Your task to perform on an android device: Open ESPN.com Image 0: 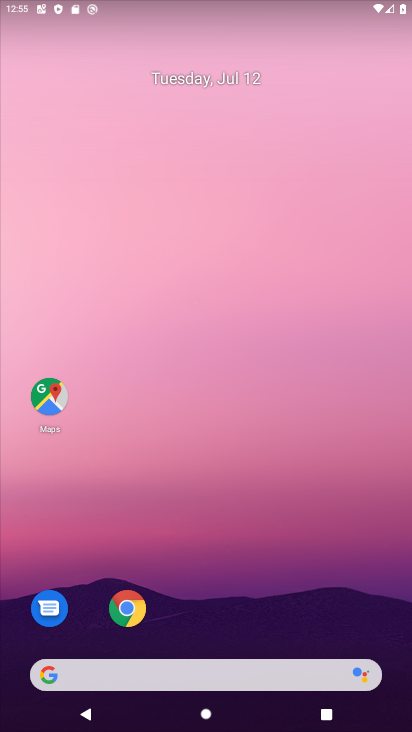
Step 0: drag from (292, 592) to (274, 349)
Your task to perform on an android device: Open ESPN.com Image 1: 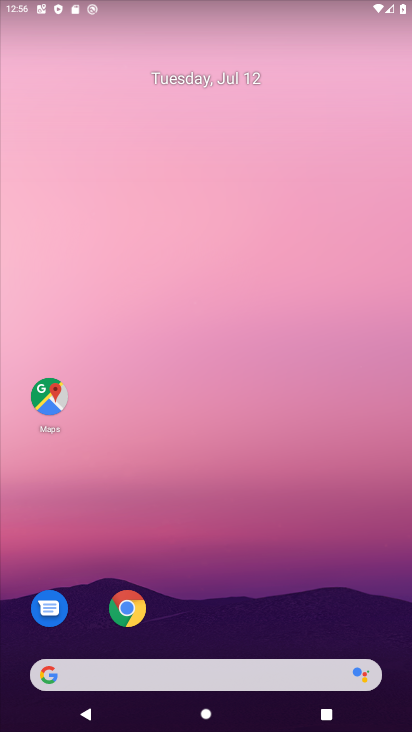
Step 1: drag from (219, 617) to (225, 231)
Your task to perform on an android device: Open ESPN.com Image 2: 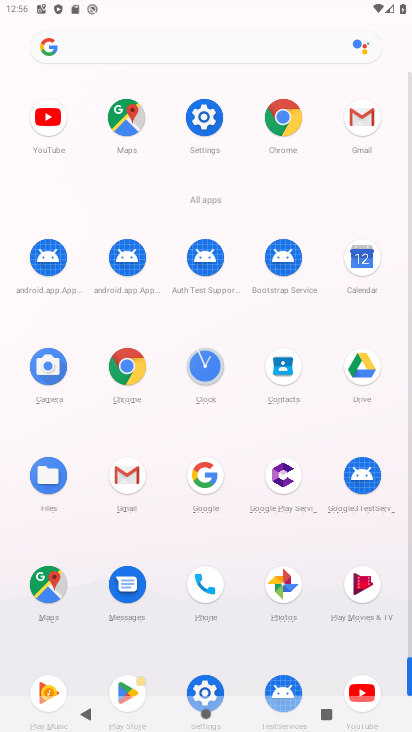
Step 2: click (268, 120)
Your task to perform on an android device: Open ESPN.com Image 3: 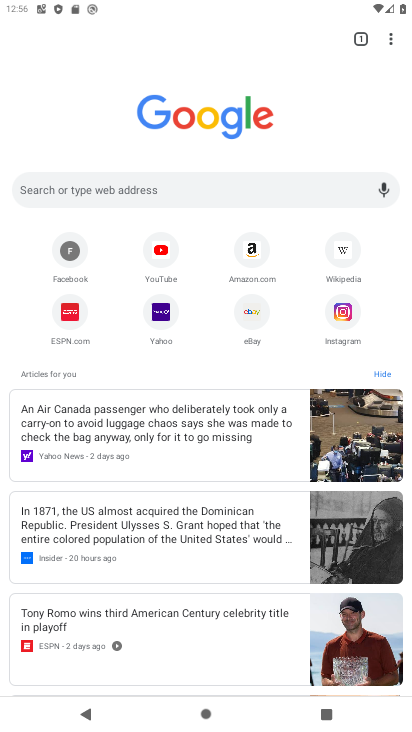
Step 3: click (82, 311)
Your task to perform on an android device: Open ESPN.com Image 4: 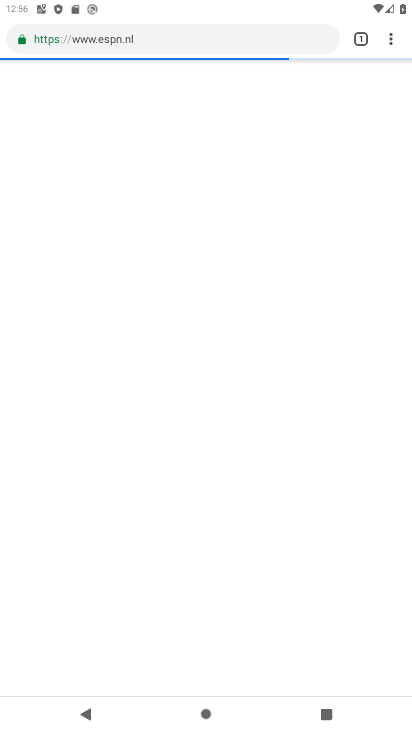
Step 4: task complete